Your task to perform on an android device: see creations saved in the google photos Image 0: 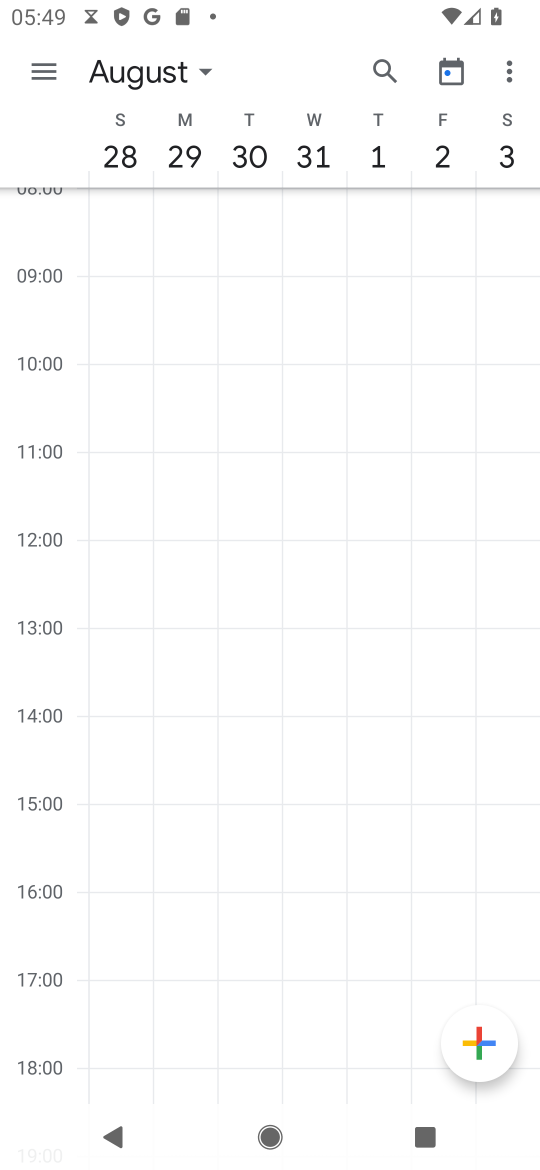
Step 0: press home button
Your task to perform on an android device: see creations saved in the google photos Image 1: 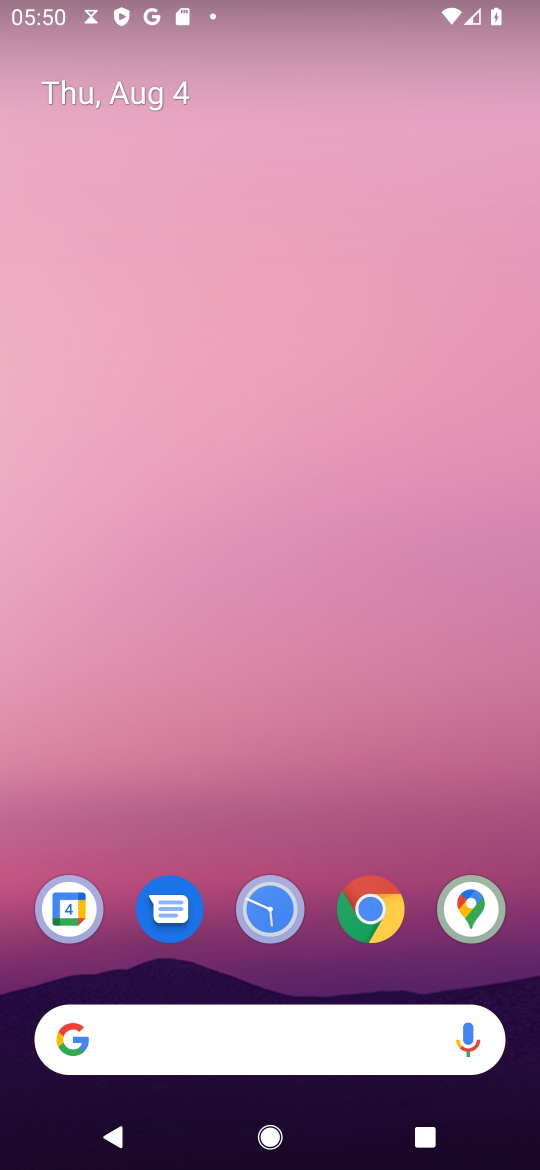
Step 1: drag from (257, 1039) to (423, 168)
Your task to perform on an android device: see creations saved in the google photos Image 2: 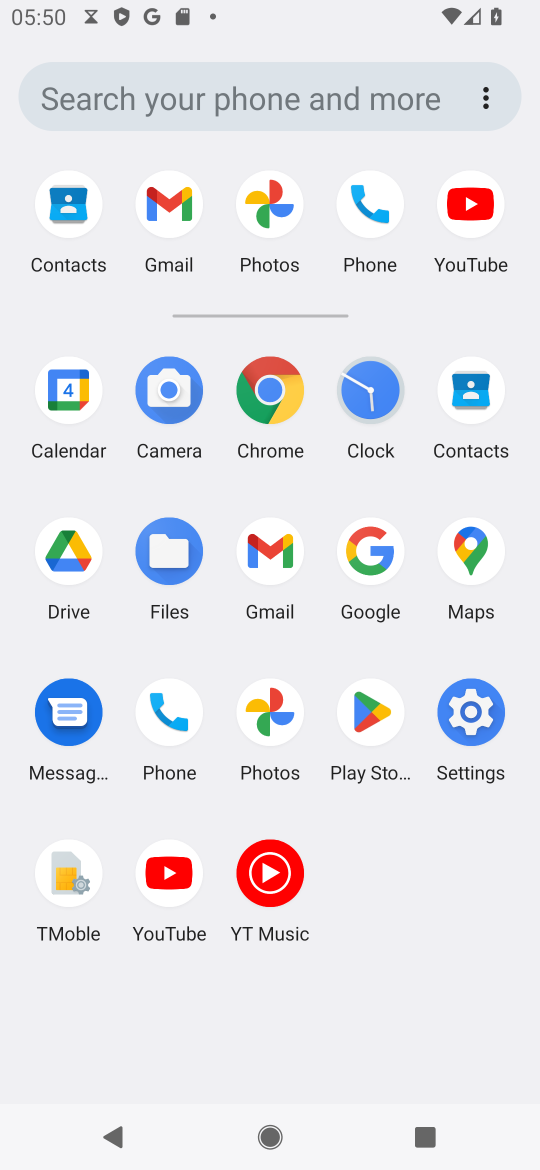
Step 2: click (255, 719)
Your task to perform on an android device: see creations saved in the google photos Image 3: 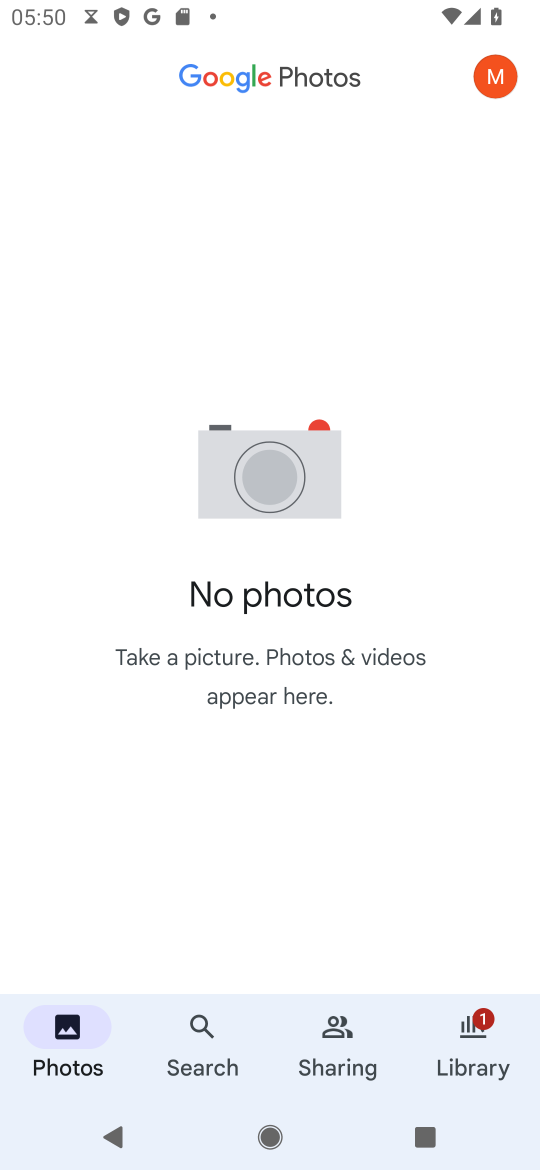
Step 3: click (195, 1077)
Your task to perform on an android device: see creations saved in the google photos Image 4: 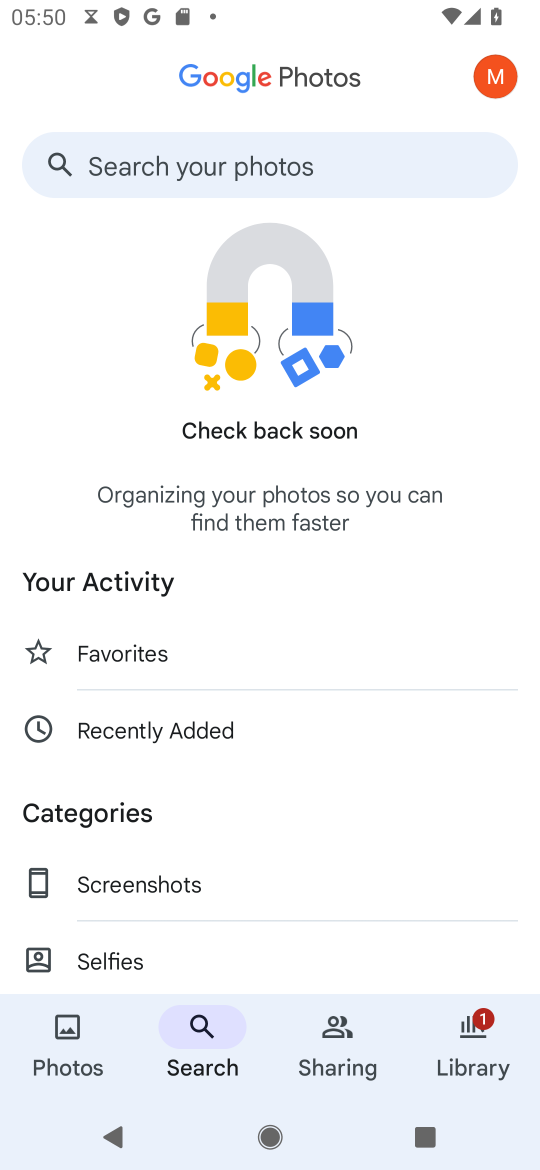
Step 4: drag from (221, 940) to (413, 269)
Your task to perform on an android device: see creations saved in the google photos Image 5: 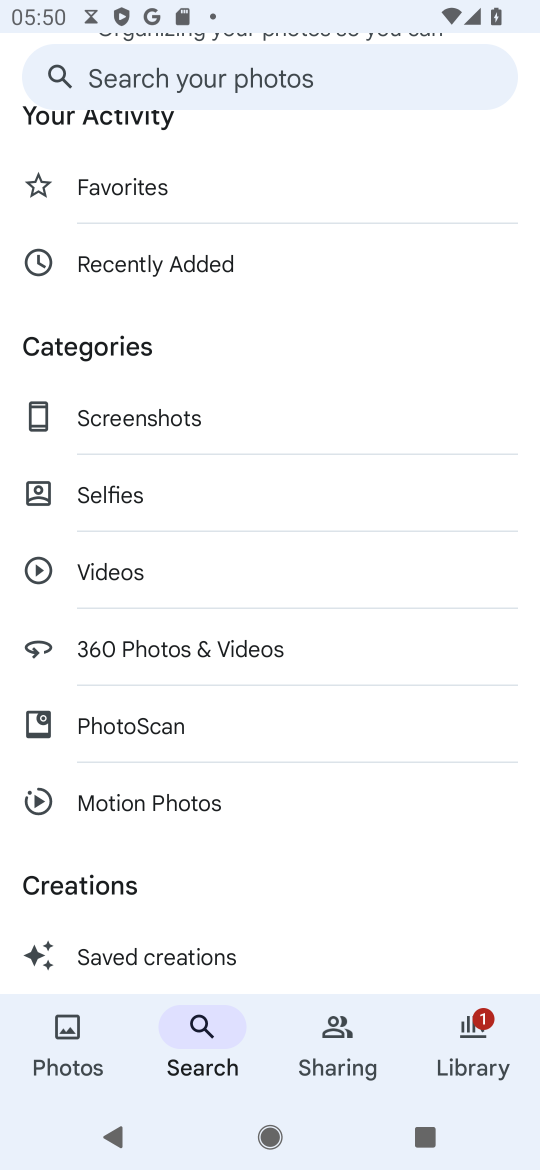
Step 5: click (147, 954)
Your task to perform on an android device: see creations saved in the google photos Image 6: 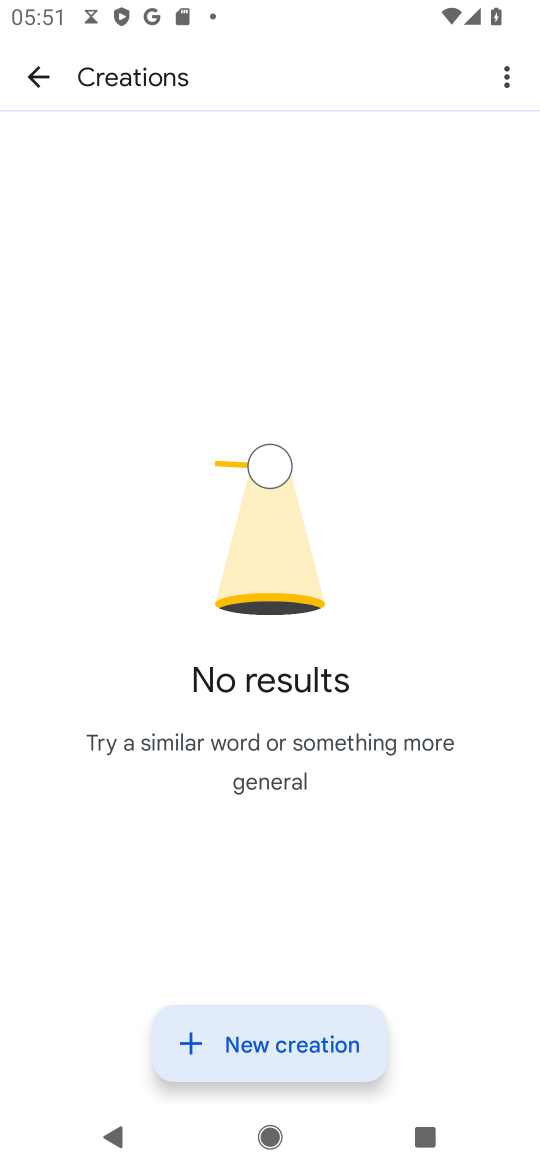
Step 6: task complete